Your task to perform on an android device: open chrome and create a bookmark for the current page Image 0: 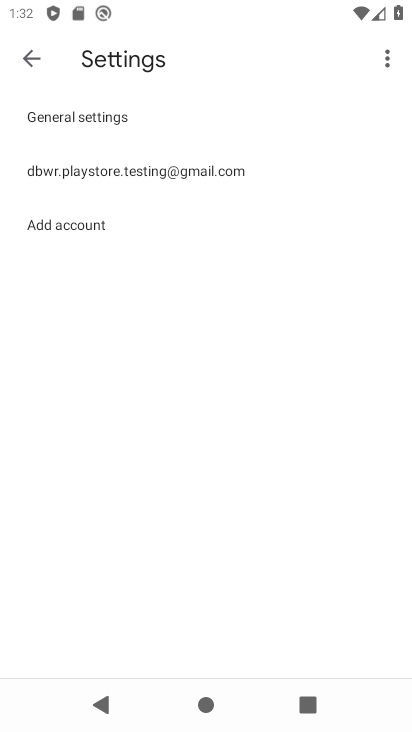
Step 0: press home button
Your task to perform on an android device: open chrome and create a bookmark for the current page Image 1: 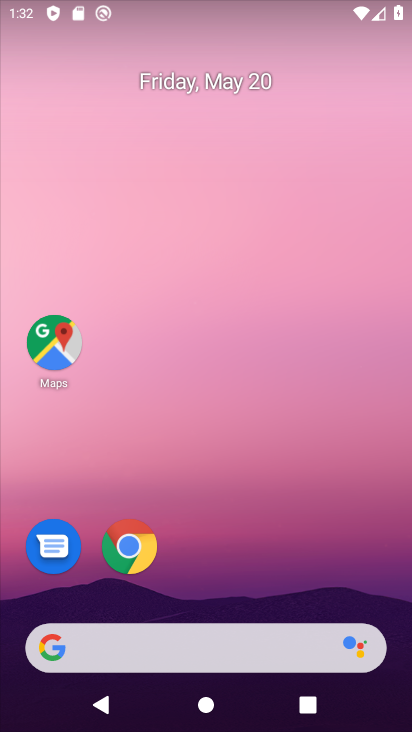
Step 1: drag from (259, 607) to (404, 171)
Your task to perform on an android device: open chrome and create a bookmark for the current page Image 2: 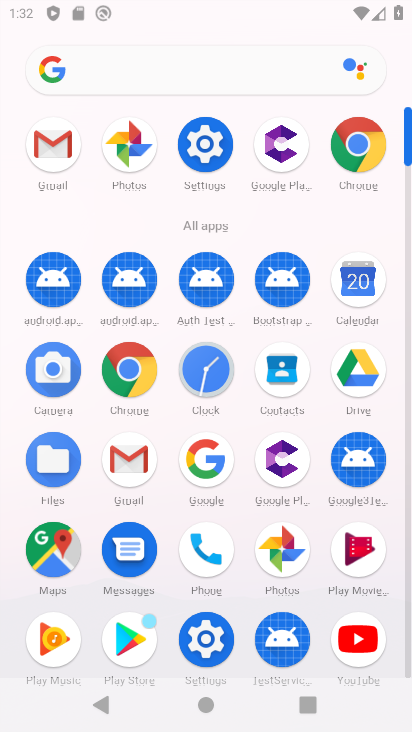
Step 2: click (367, 168)
Your task to perform on an android device: open chrome and create a bookmark for the current page Image 3: 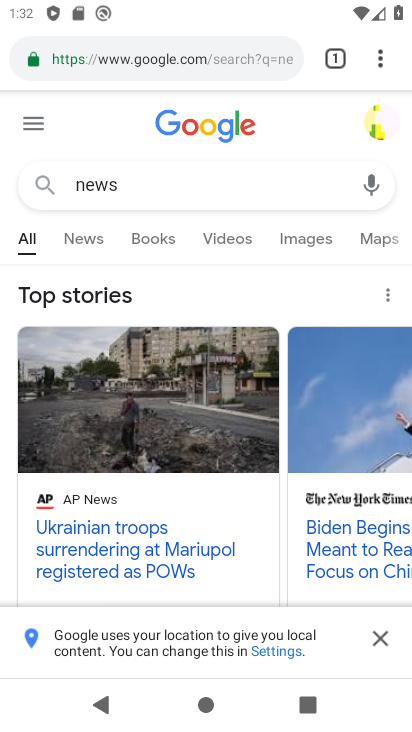
Step 3: click (386, 71)
Your task to perform on an android device: open chrome and create a bookmark for the current page Image 4: 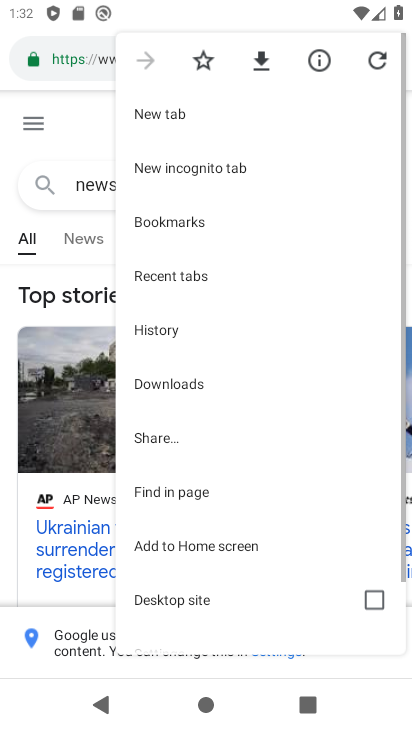
Step 4: click (210, 69)
Your task to perform on an android device: open chrome and create a bookmark for the current page Image 5: 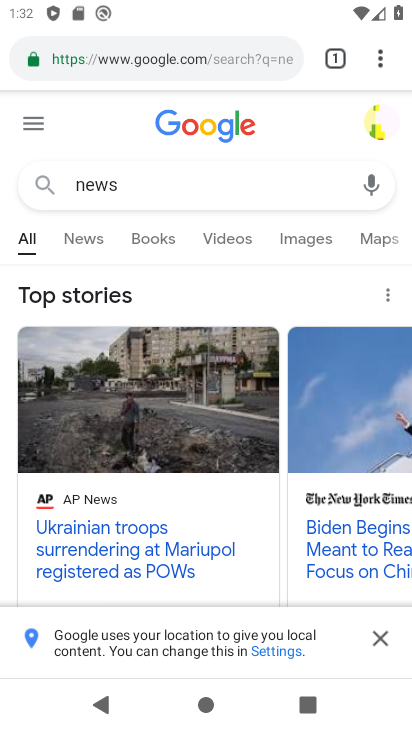
Step 5: task complete